Your task to perform on an android device: Open Google Chrome and click the shortcut for Amazon.com Image 0: 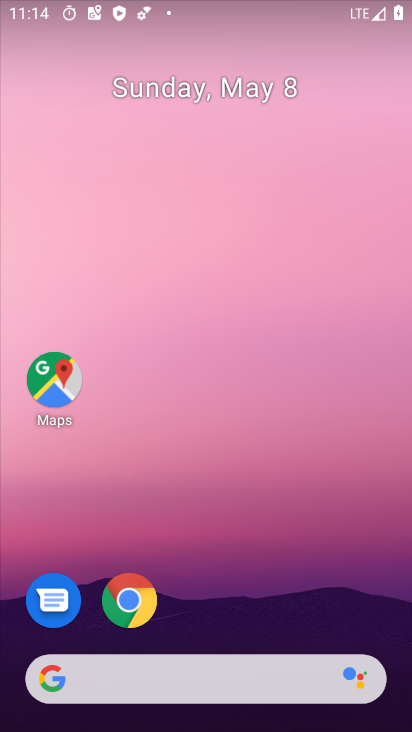
Step 0: click (128, 596)
Your task to perform on an android device: Open Google Chrome and click the shortcut for Amazon.com Image 1: 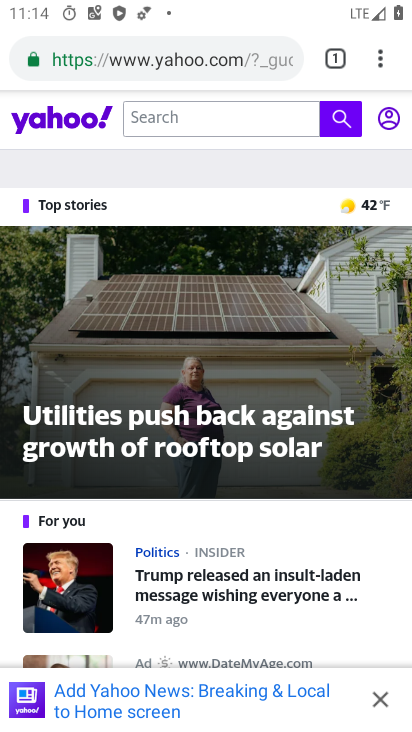
Step 1: press back button
Your task to perform on an android device: Open Google Chrome and click the shortcut for Amazon.com Image 2: 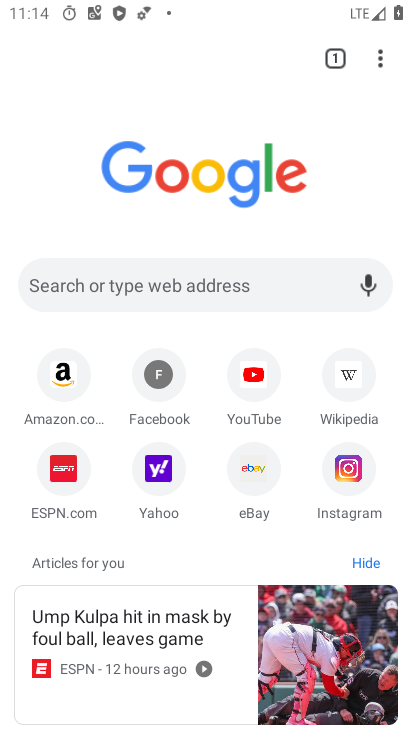
Step 2: click (53, 381)
Your task to perform on an android device: Open Google Chrome and click the shortcut for Amazon.com Image 3: 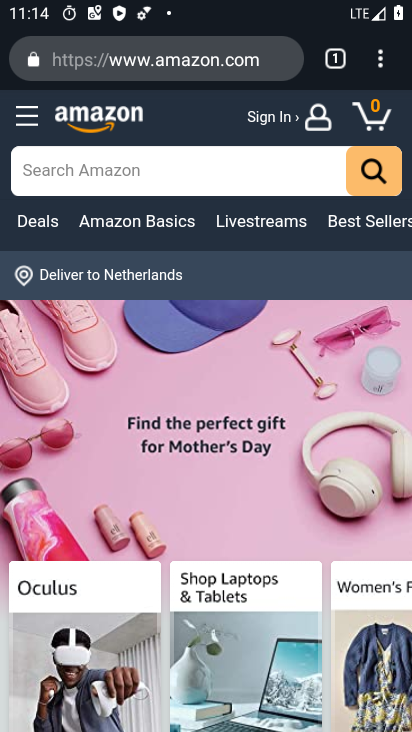
Step 3: task complete